Your task to perform on an android device: turn on the 12-hour format for clock Image 0: 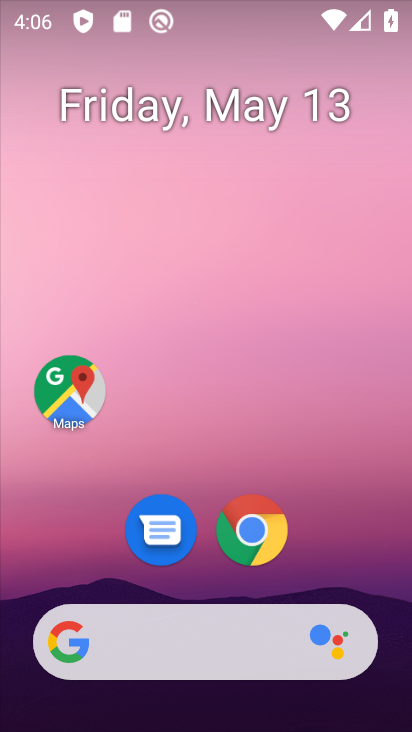
Step 0: drag from (233, 685) to (268, 129)
Your task to perform on an android device: turn on the 12-hour format for clock Image 1: 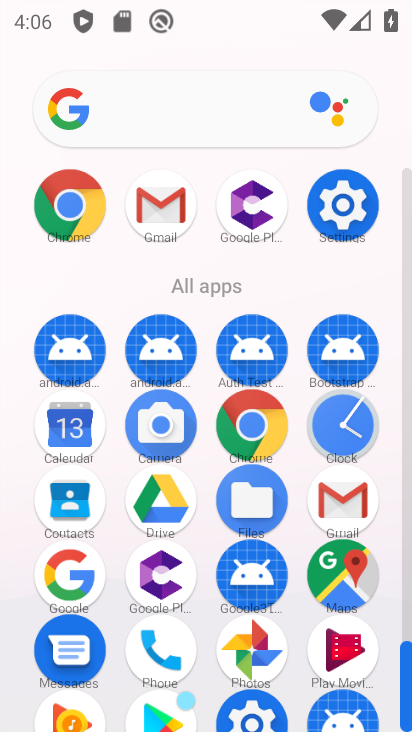
Step 1: click (341, 446)
Your task to perform on an android device: turn on the 12-hour format for clock Image 2: 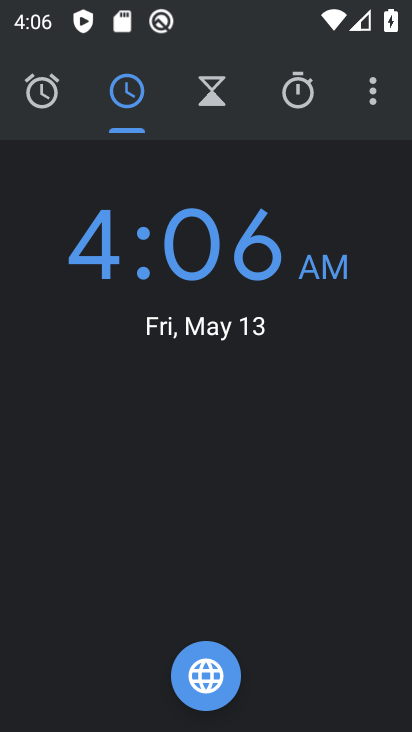
Step 2: click (368, 92)
Your task to perform on an android device: turn on the 12-hour format for clock Image 3: 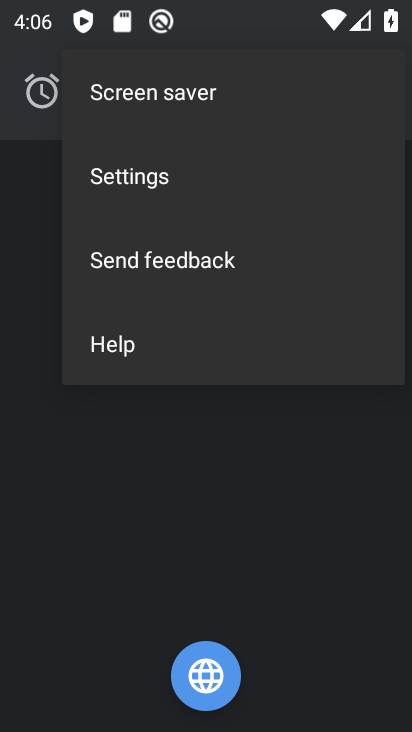
Step 3: click (170, 194)
Your task to perform on an android device: turn on the 12-hour format for clock Image 4: 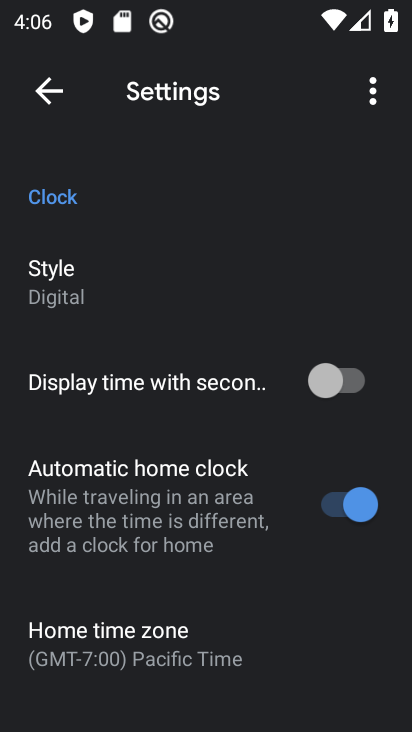
Step 4: drag from (215, 623) to (217, 387)
Your task to perform on an android device: turn on the 12-hour format for clock Image 5: 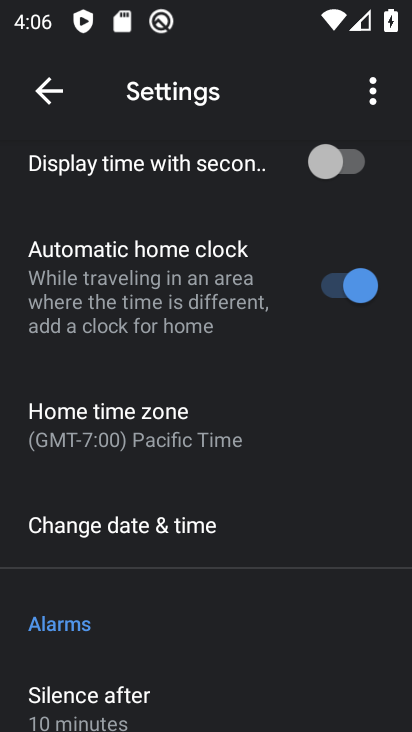
Step 5: click (162, 532)
Your task to perform on an android device: turn on the 12-hour format for clock Image 6: 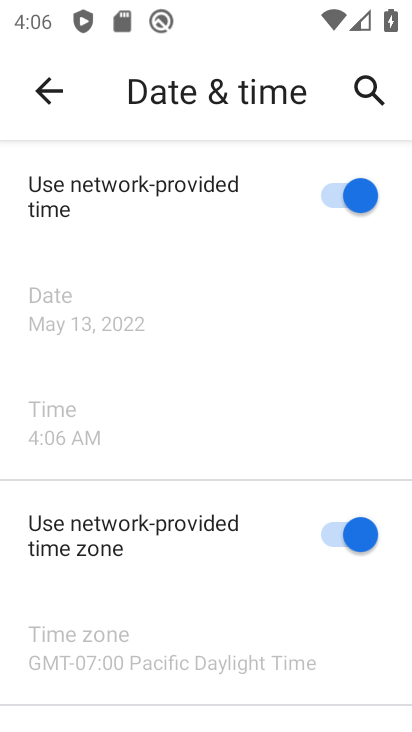
Step 6: drag from (161, 530) to (225, 257)
Your task to perform on an android device: turn on the 12-hour format for clock Image 7: 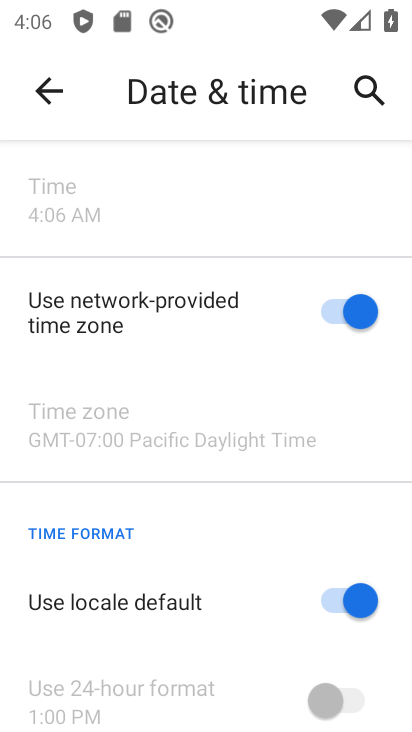
Step 7: click (309, 592)
Your task to perform on an android device: turn on the 12-hour format for clock Image 8: 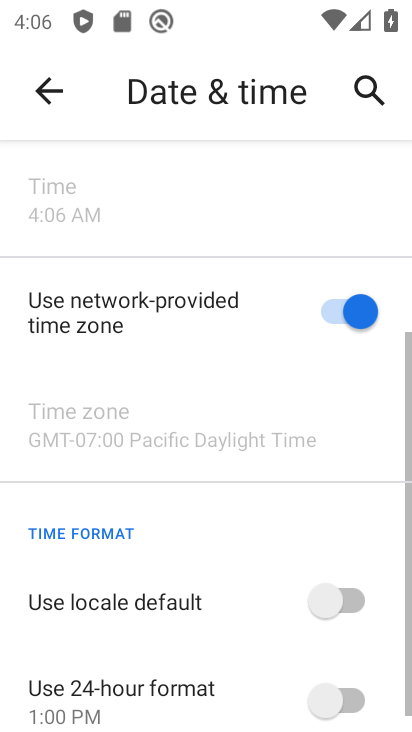
Step 8: click (347, 692)
Your task to perform on an android device: turn on the 12-hour format for clock Image 9: 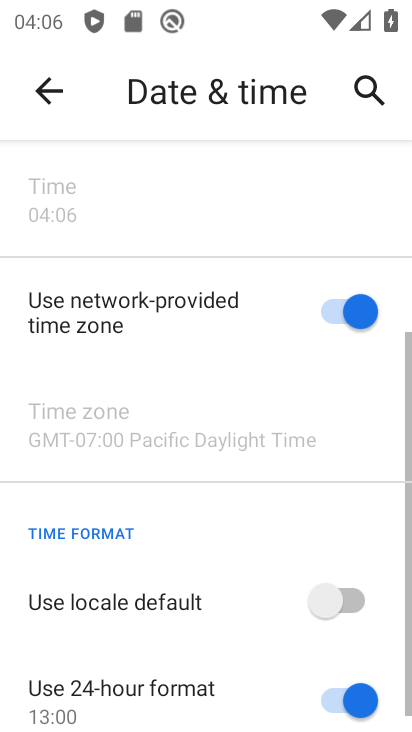
Step 9: click (347, 692)
Your task to perform on an android device: turn on the 12-hour format for clock Image 10: 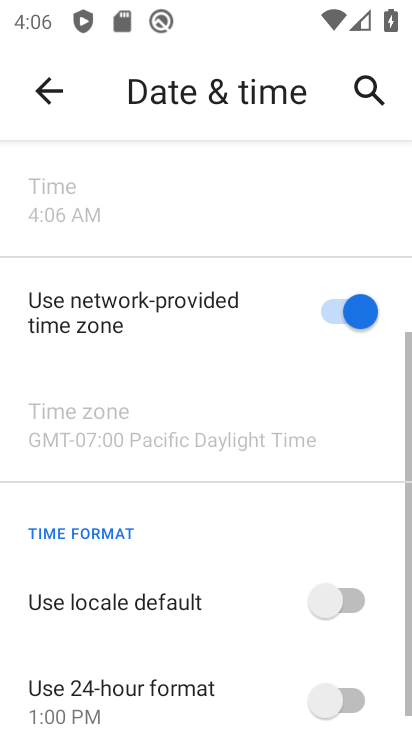
Step 10: task complete